Your task to perform on an android device: open a bookmark in the chrome app Image 0: 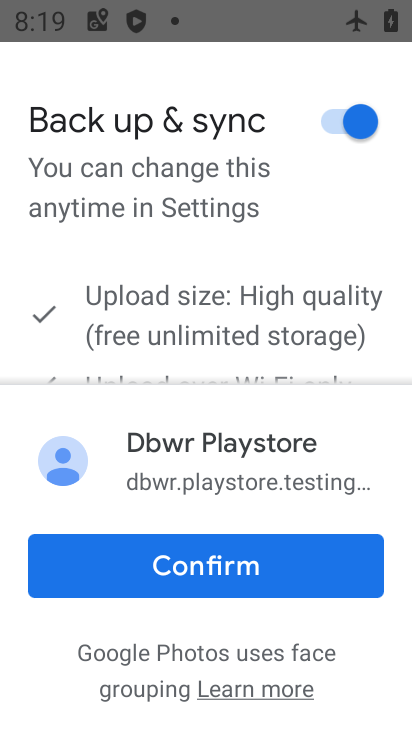
Step 0: press home button
Your task to perform on an android device: open a bookmark in the chrome app Image 1: 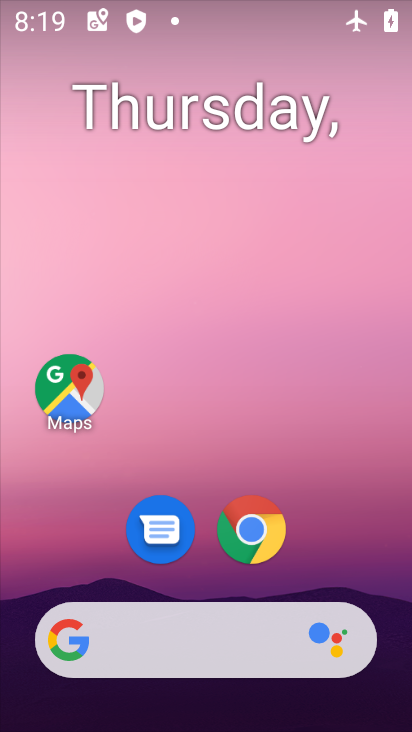
Step 1: drag from (202, 618) to (264, 7)
Your task to perform on an android device: open a bookmark in the chrome app Image 2: 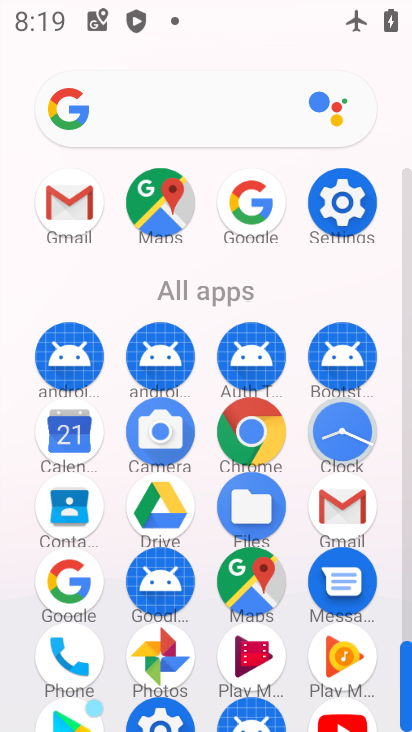
Step 2: click (241, 428)
Your task to perform on an android device: open a bookmark in the chrome app Image 3: 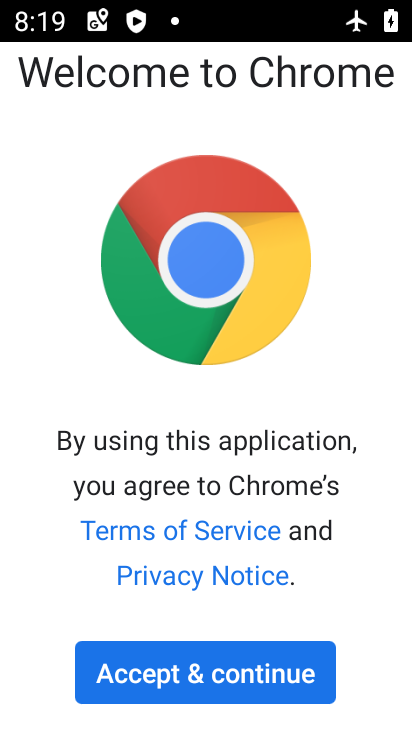
Step 3: click (204, 679)
Your task to perform on an android device: open a bookmark in the chrome app Image 4: 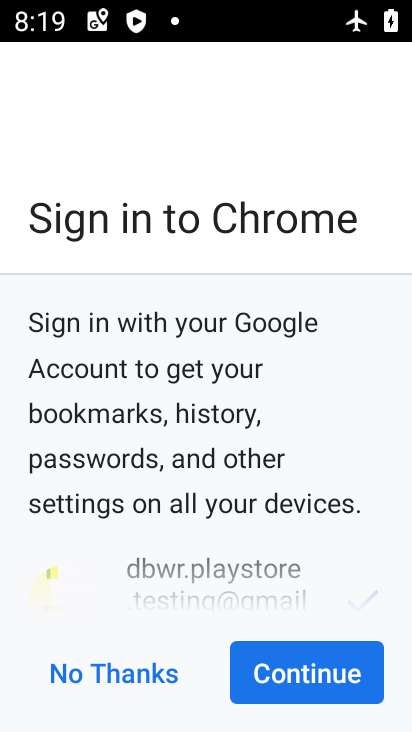
Step 4: click (286, 668)
Your task to perform on an android device: open a bookmark in the chrome app Image 5: 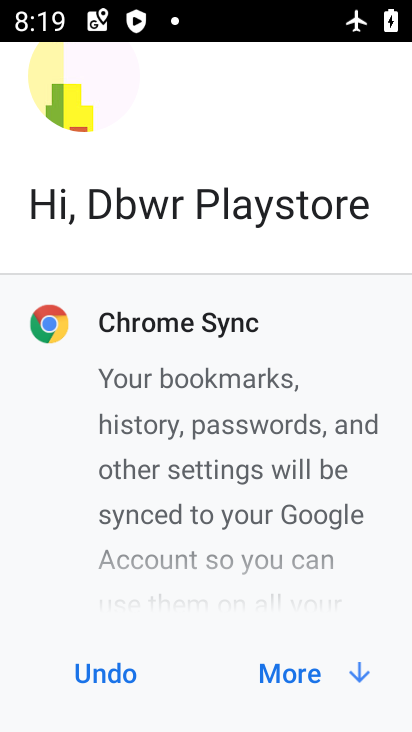
Step 5: click (277, 674)
Your task to perform on an android device: open a bookmark in the chrome app Image 6: 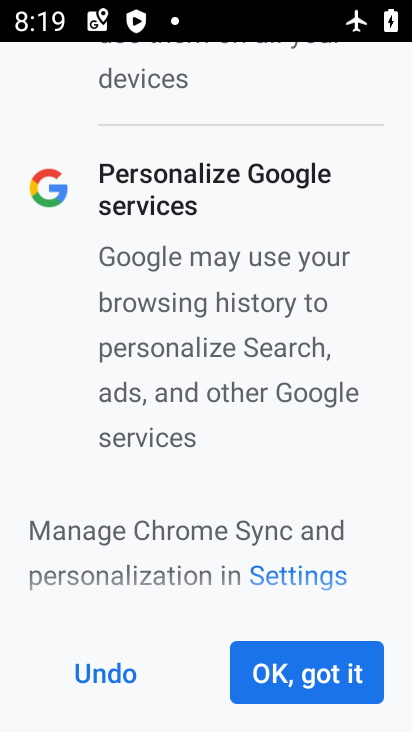
Step 6: click (282, 669)
Your task to perform on an android device: open a bookmark in the chrome app Image 7: 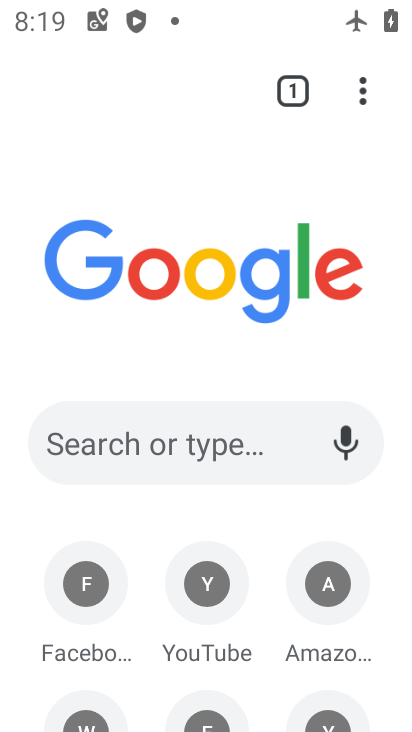
Step 7: click (357, 101)
Your task to perform on an android device: open a bookmark in the chrome app Image 8: 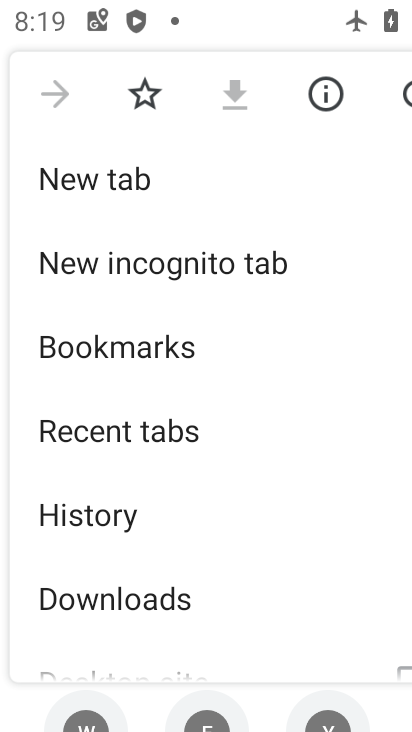
Step 8: click (62, 337)
Your task to perform on an android device: open a bookmark in the chrome app Image 9: 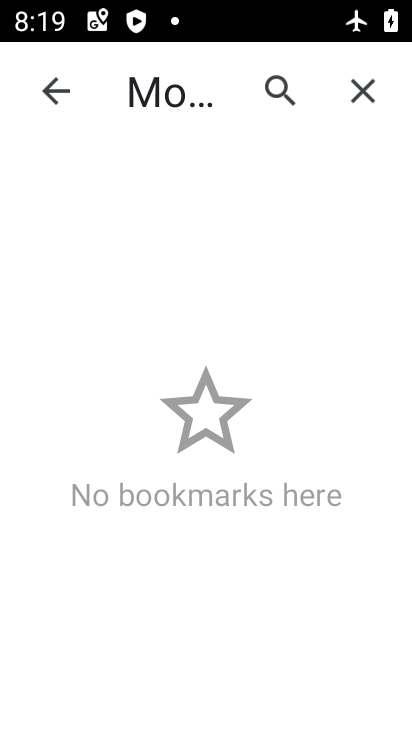
Step 9: task complete